Your task to perform on an android device: turn on javascript in the chrome app Image 0: 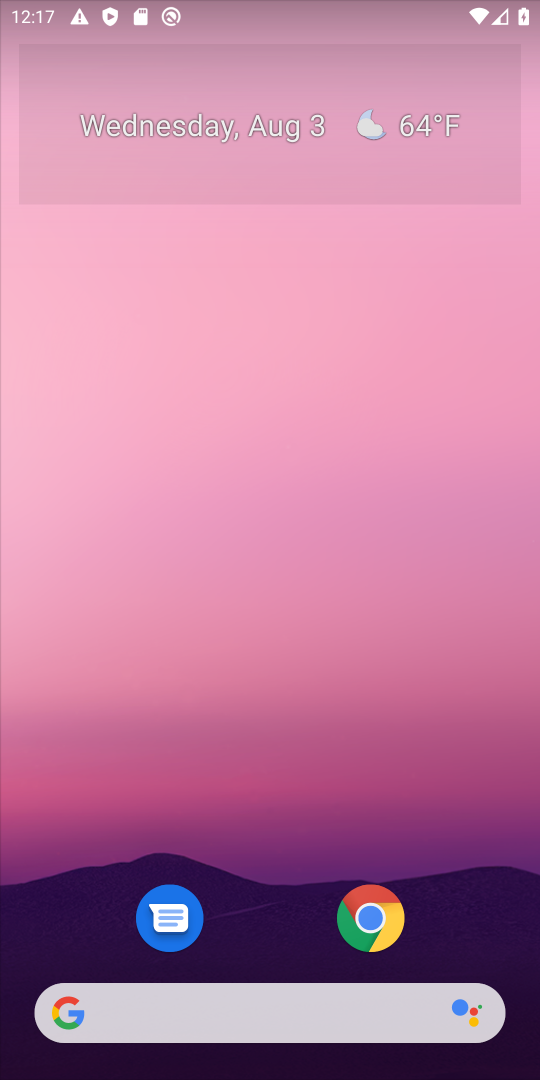
Step 0: click (386, 919)
Your task to perform on an android device: turn on javascript in the chrome app Image 1: 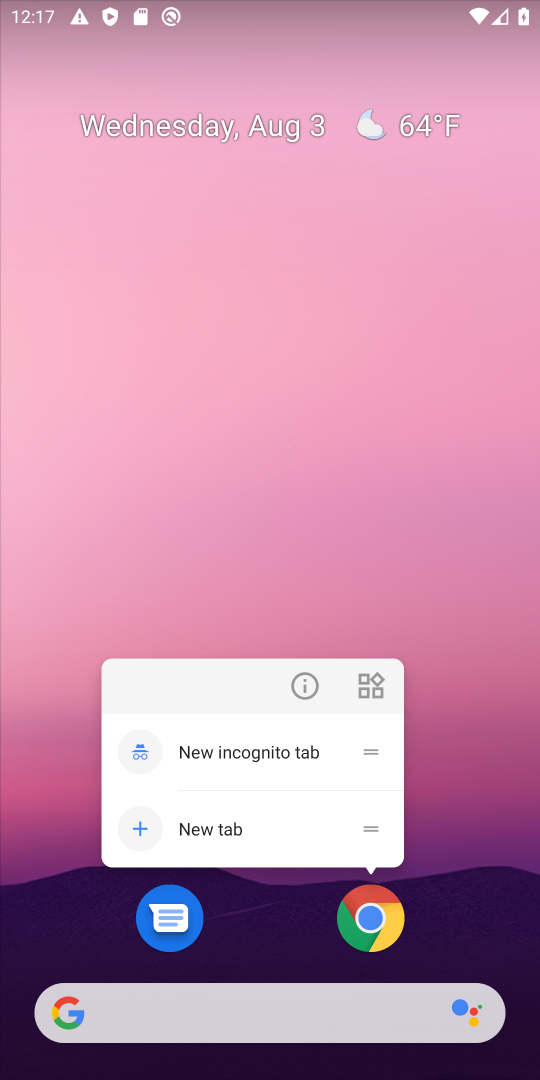
Step 1: click (386, 919)
Your task to perform on an android device: turn on javascript in the chrome app Image 2: 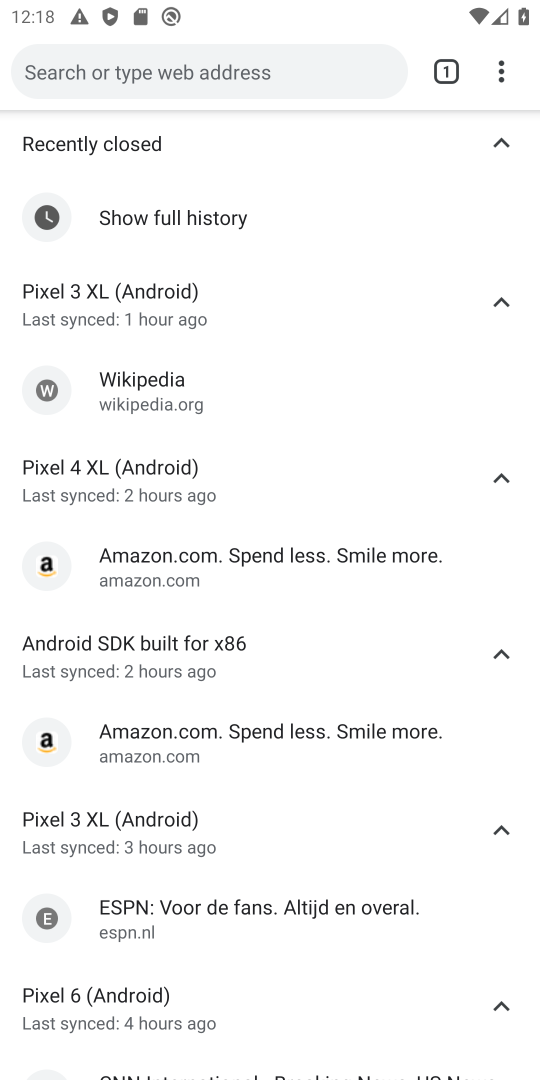
Step 2: click (502, 75)
Your task to perform on an android device: turn on javascript in the chrome app Image 3: 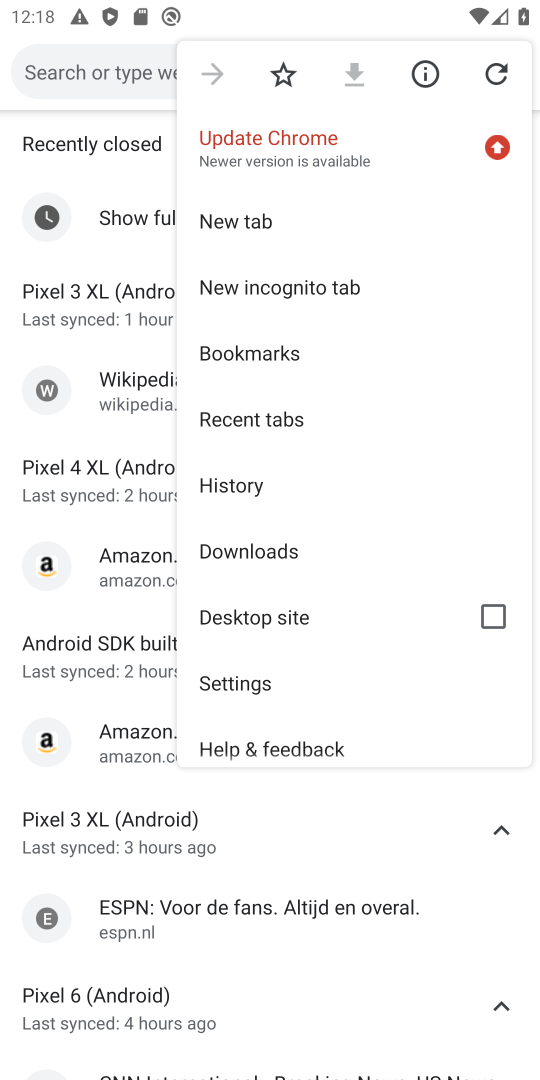
Step 3: click (275, 674)
Your task to perform on an android device: turn on javascript in the chrome app Image 4: 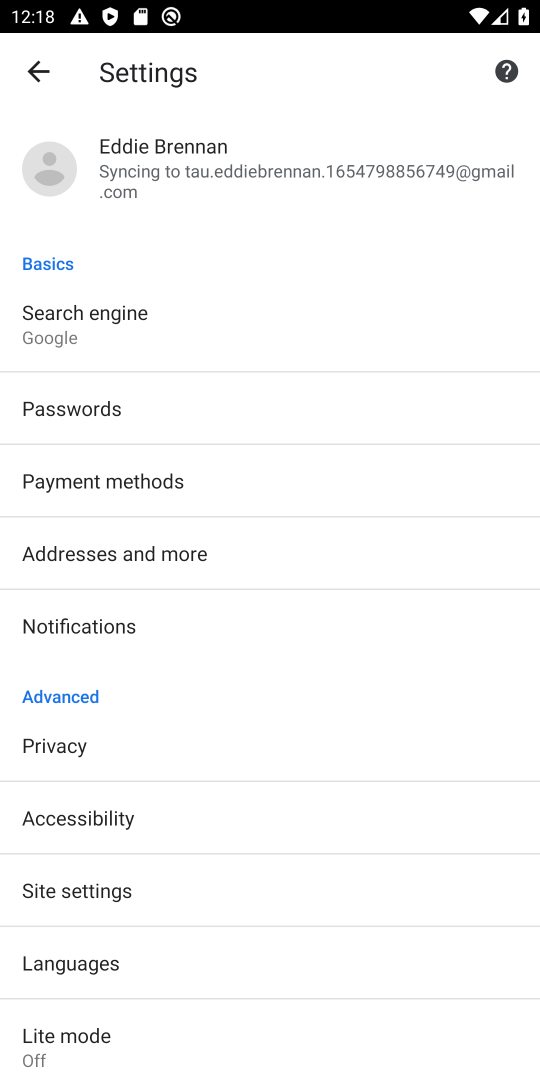
Step 4: click (123, 886)
Your task to perform on an android device: turn on javascript in the chrome app Image 5: 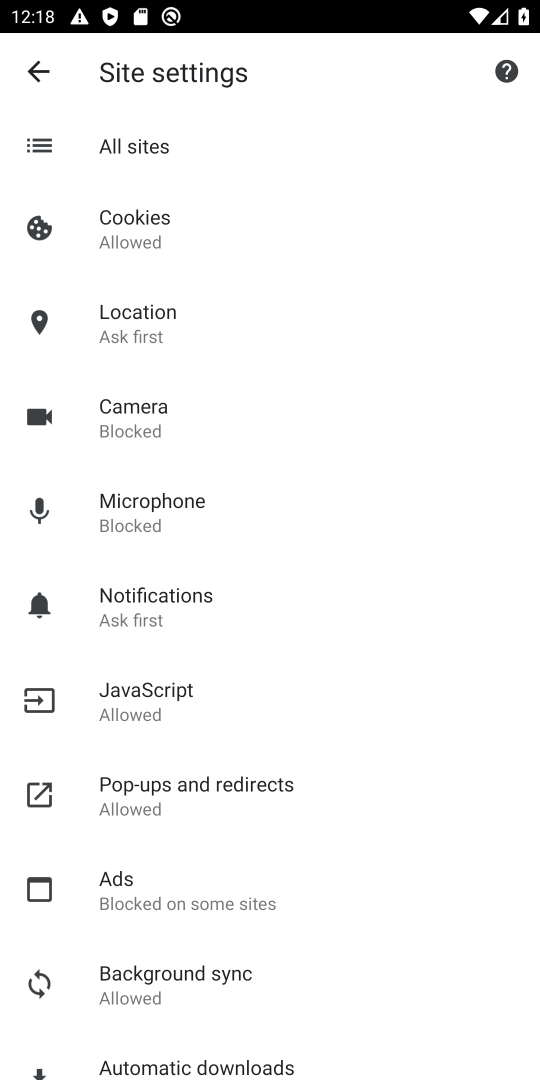
Step 5: drag from (286, 724) to (274, 382)
Your task to perform on an android device: turn on javascript in the chrome app Image 6: 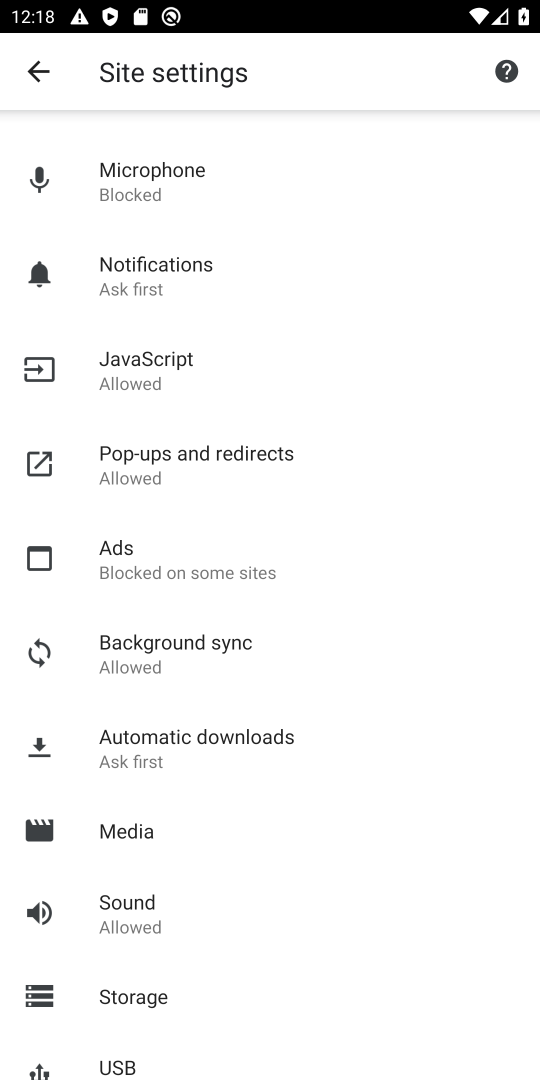
Step 6: click (189, 370)
Your task to perform on an android device: turn on javascript in the chrome app Image 7: 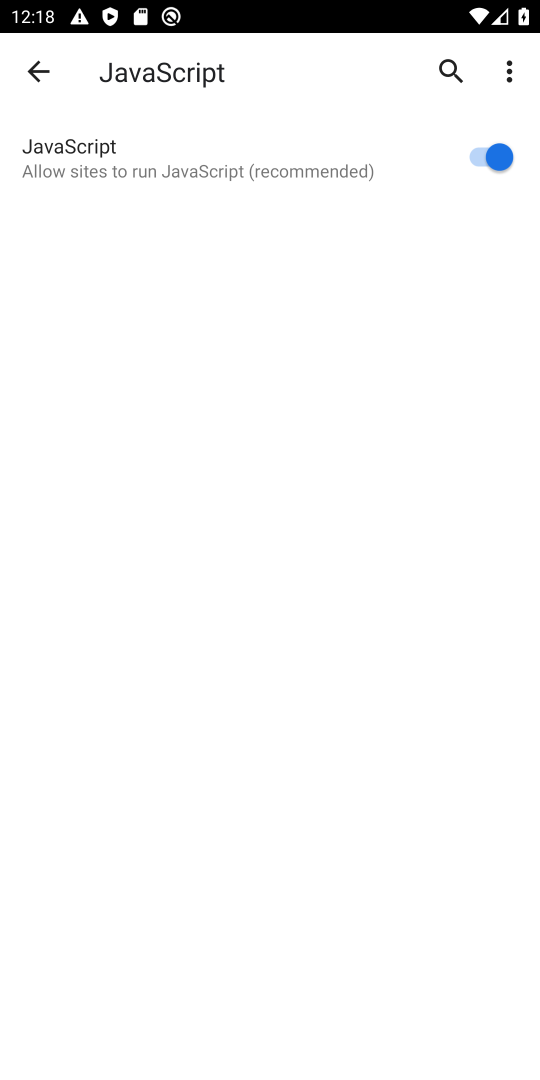
Step 7: task complete